Your task to perform on an android device: refresh tabs in the chrome app Image 0: 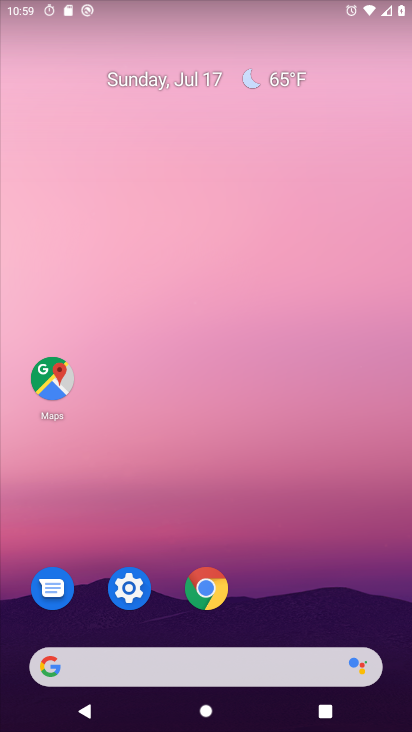
Step 0: drag from (274, 540) to (226, 134)
Your task to perform on an android device: refresh tabs in the chrome app Image 1: 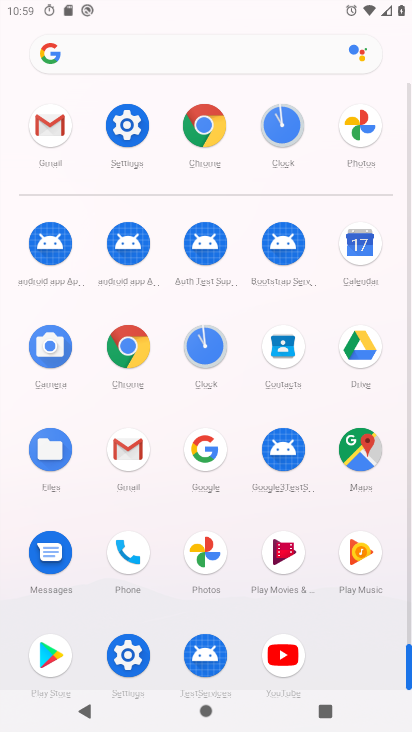
Step 1: click (191, 126)
Your task to perform on an android device: refresh tabs in the chrome app Image 2: 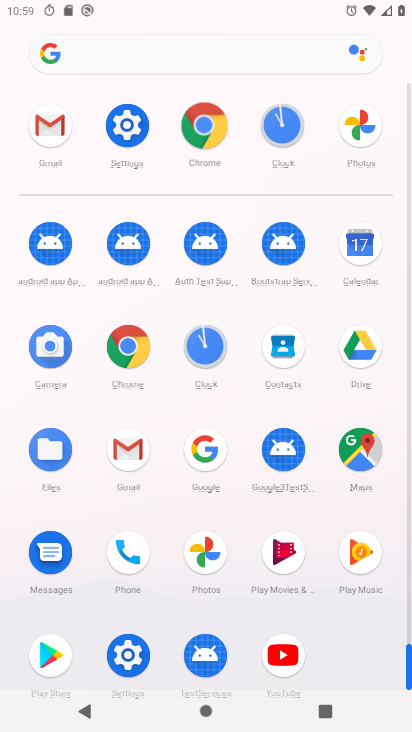
Step 2: click (218, 125)
Your task to perform on an android device: refresh tabs in the chrome app Image 3: 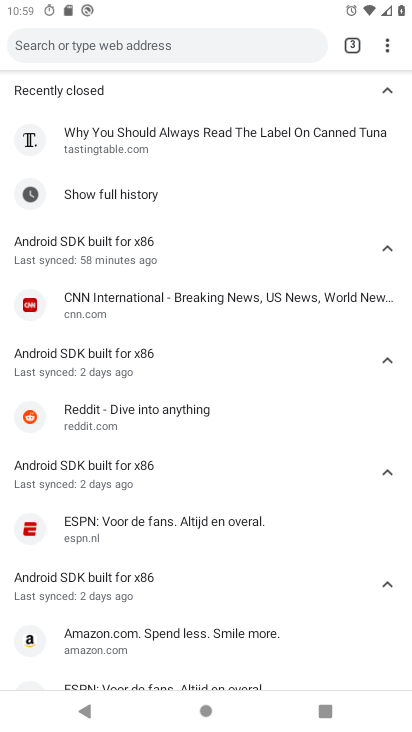
Step 3: click (382, 49)
Your task to perform on an android device: refresh tabs in the chrome app Image 4: 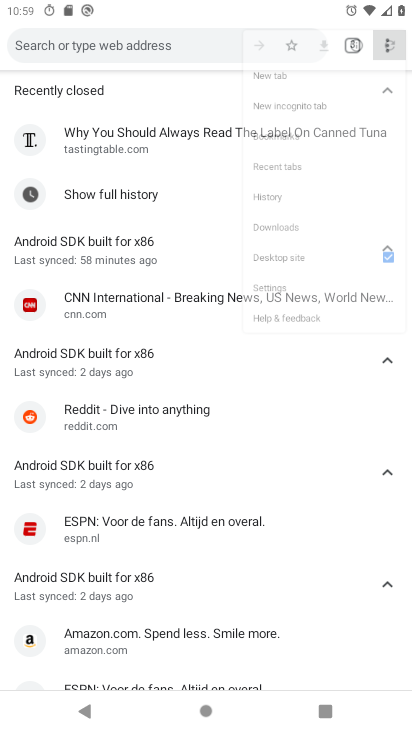
Step 4: click (382, 50)
Your task to perform on an android device: refresh tabs in the chrome app Image 5: 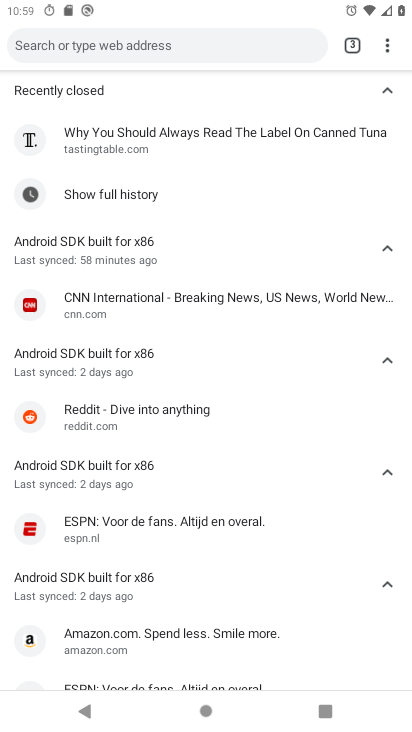
Step 5: click (377, 43)
Your task to perform on an android device: refresh tabs in the chrome app Image 6: 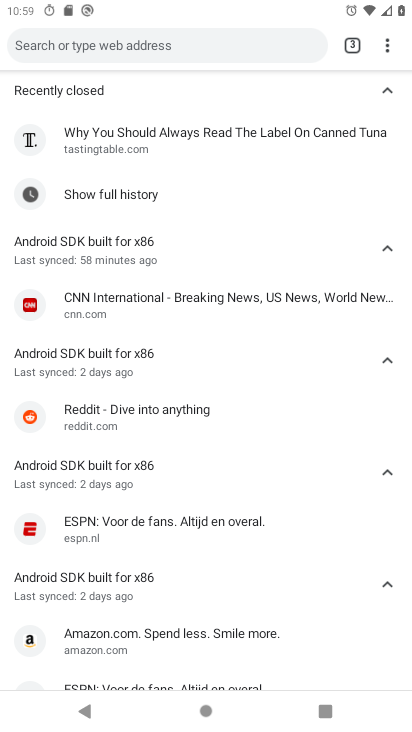
Step 6: click (388, 46)
Your task to perform on an android device: refresh tabs in the chrome app Image 7: 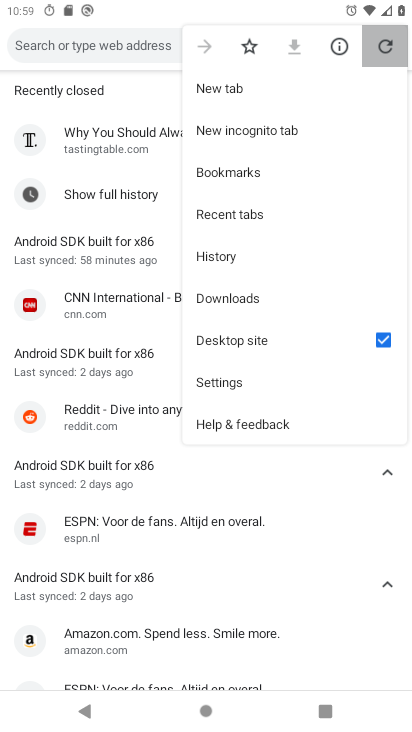
Step 7: click (388, 43)
Your task to perform on an android device: refresh tabs in the chrome app Image 8: 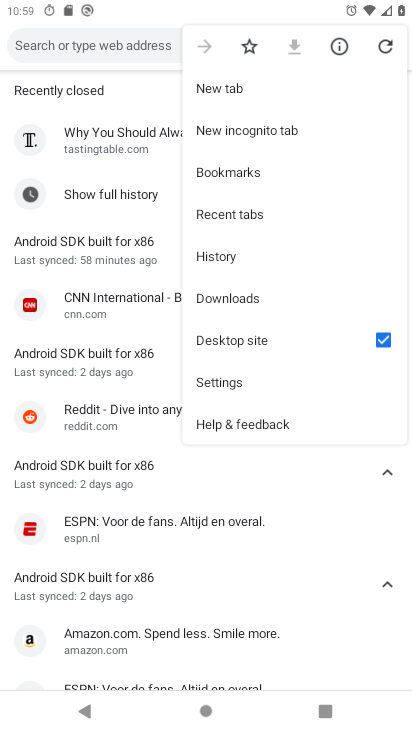
Step 8: task complete